Your task to perform on an android device: make emails show in primary in the gmail app Image 0: 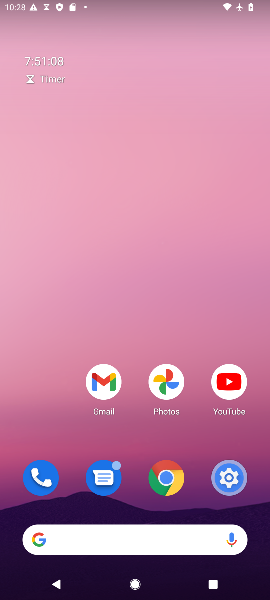
Step 0: drag from (189, 352) to (142, 14)
Your task to perform on an android device: make emails show in primary in the gmail app Image 1: 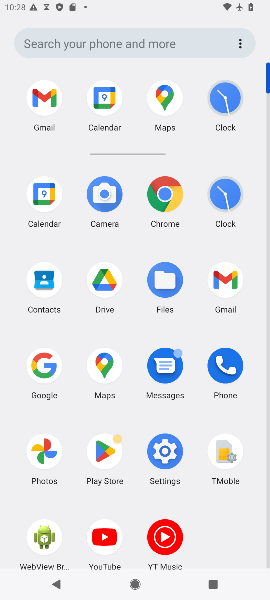
Step 1: click (52, 96)
Your task to perform on an android device: make emails show in primary in the gmail app Image 2: 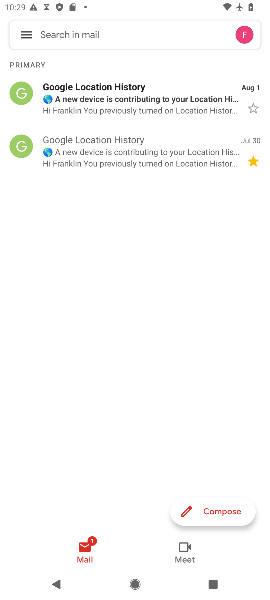
Step 2: click (24, 42)
Your task to perform on an android device: make emails show in primary in the gmail app Image 3: 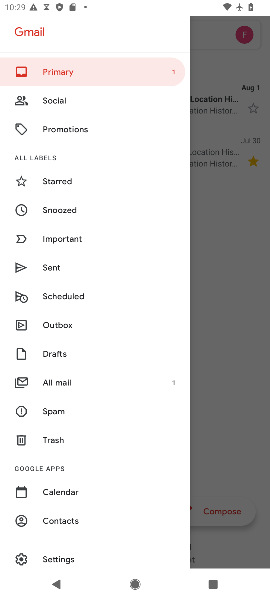
Step 3: click (80, 556)
Your task to perform on an android device: make emails show in primary in the gmail app Image 4: 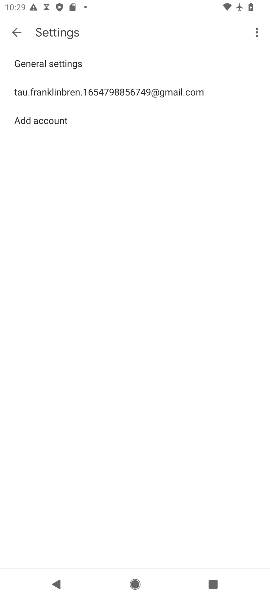
Step 4: click (110, 97)
Your task to perform on an android device: make emails show in primary in the gmail app Image 5: 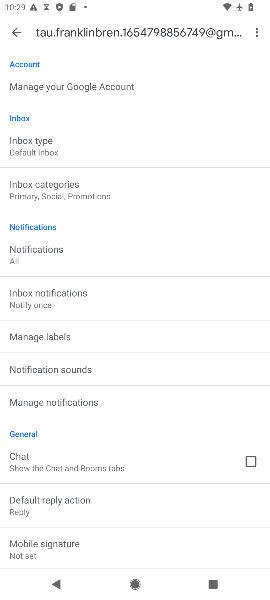
Step 5: drag from (100, 541) to (79, 147)
Your task to perform on an android device: make emails show in primary in the gmail app Image 6: 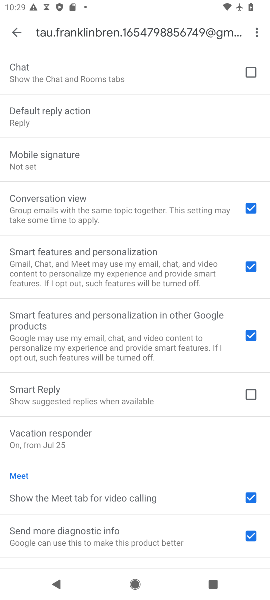
Step 6: drag from (84, 533) to (68, 261)
Your task to perform on an android device: make emails show in primary in the gmail app Image 7: 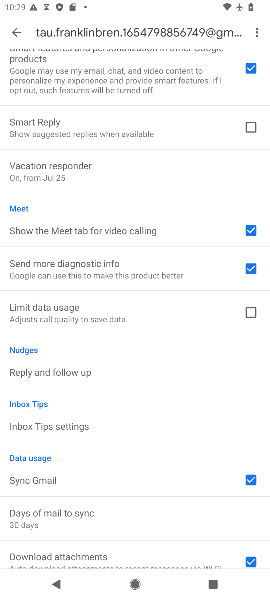
Step 7: drag from (88, 77) to (95, 593)
Your task to perform on an android device: make emails show in primary in the gmail app Image 8: 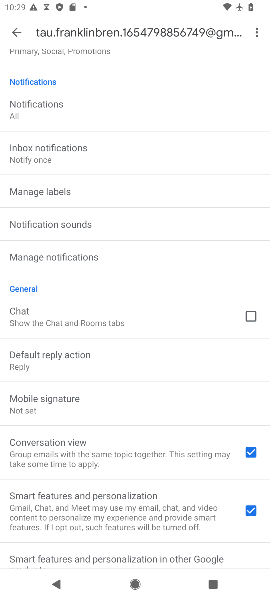
Step 8: drag from (51, 134) to (83, 544)
Your task to perform on an android device: make emails show in primary in the gmail app Image 9: 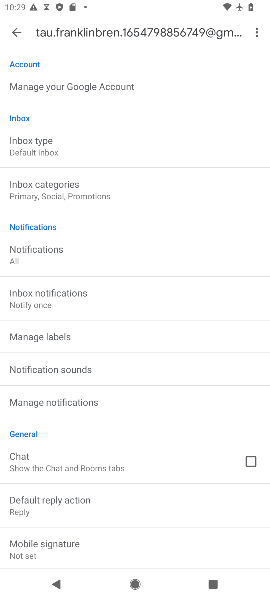
Step 9: click (54, 153)
Your task to perform on an android device: make emails show in primary in the gmail app Image 10: 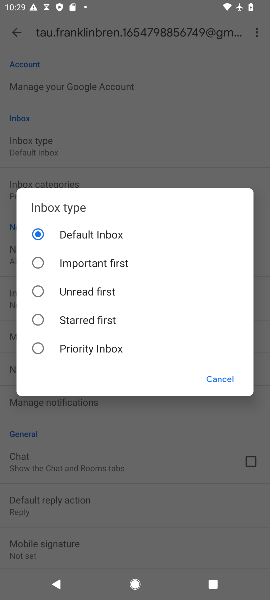
Step 10: click (227, 378)
Your task to perform on an android device: make emails show in primary in the gmail app Image 11: 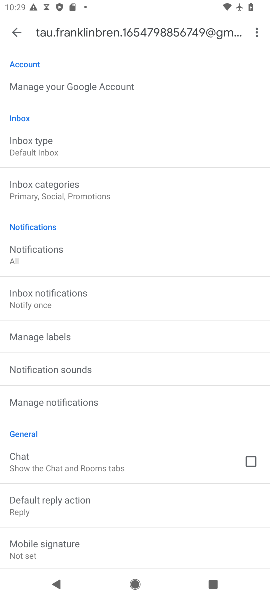
Step 11: task complete